Your task to perform on an android device: What's the weather? Image 0: 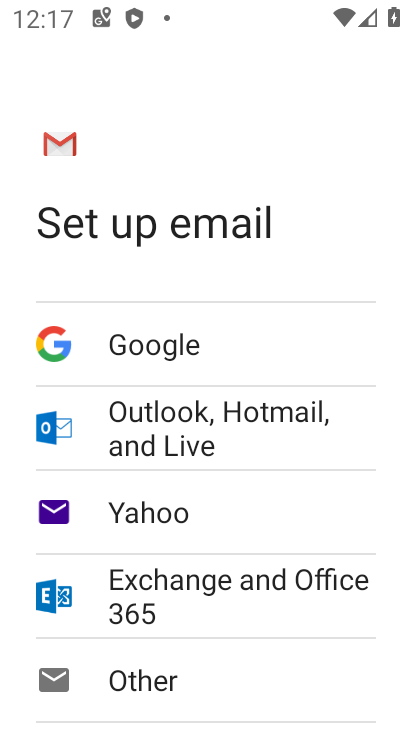
Step 0: press home button
Your task to perform on an android device: What's the weather? Image 1: 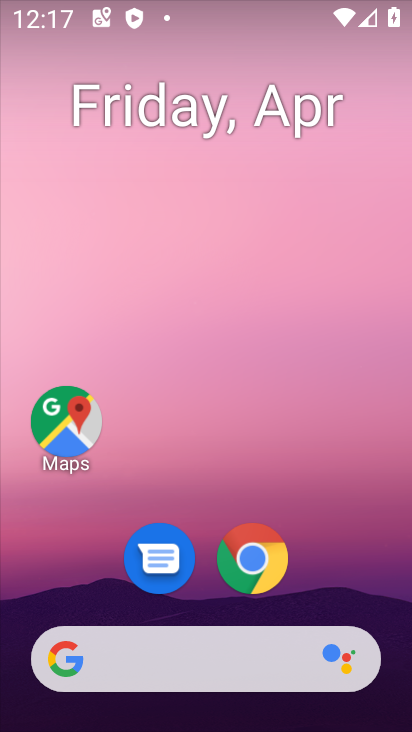
Step 1: drag from (374, 596) to (295, 62)
Your task to perform on an android device: What's the weather? Image 2: 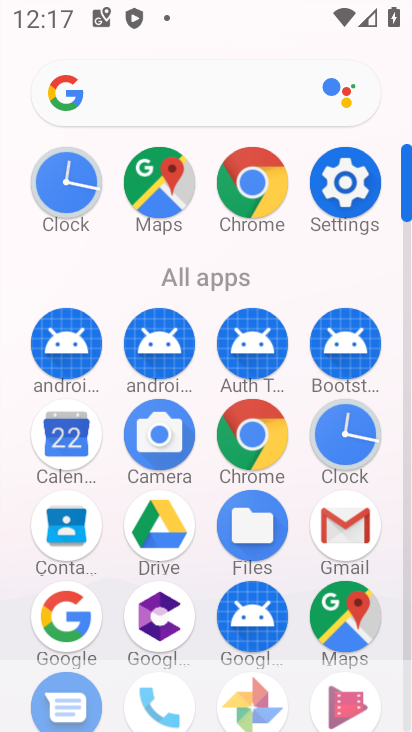
Step 2: press back button
Your task to perform on an android device: What's the weather? Image 3: 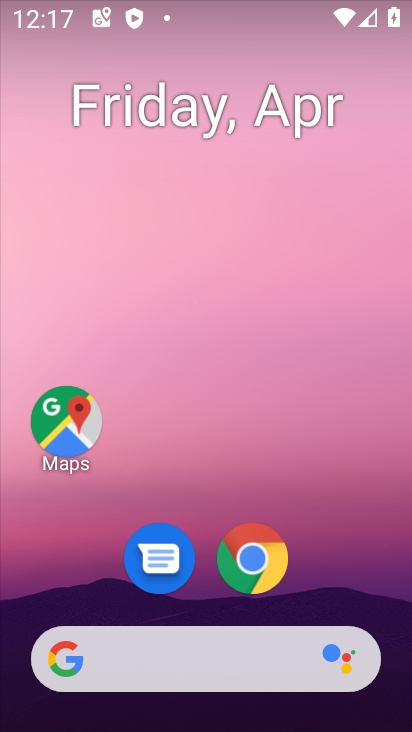
Step 3: click (166, 642)
Your task to perform on an android device: What's the weather? Image 4: 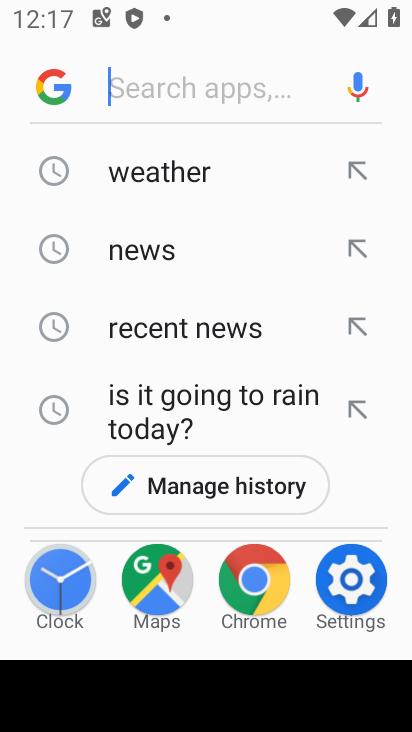
Step 4: click (147, 179)
Your task to perform on an android device: What's the weather? Image 5: 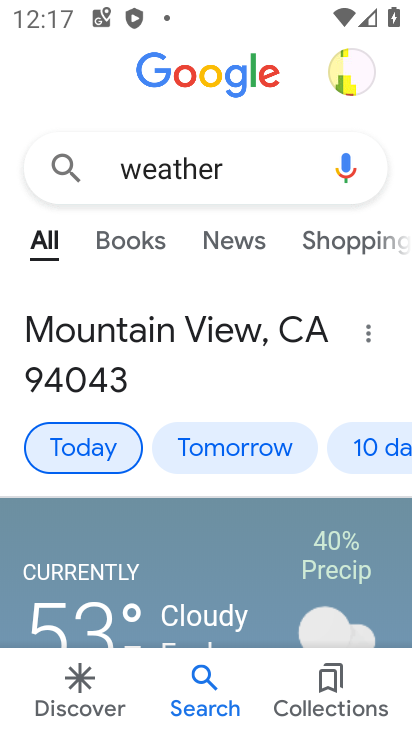
Step 5: task complete